Your task to perform on an android device: manage bookmarks in the chrome app Image 0: 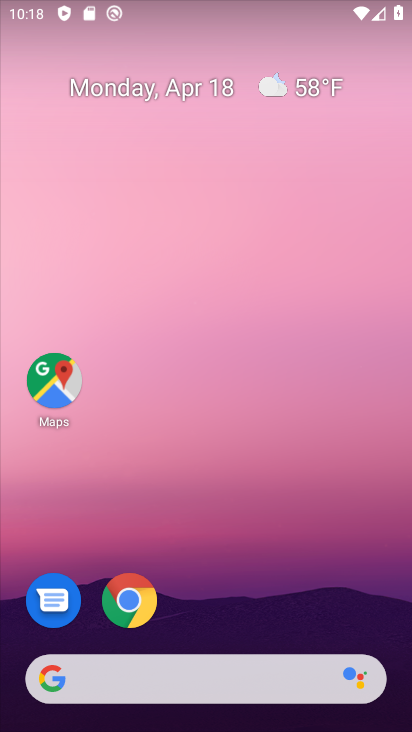
Step 0: click (127, 592)
Your task to perform on an android device: manage bookmarks in the chrome app Image 1: 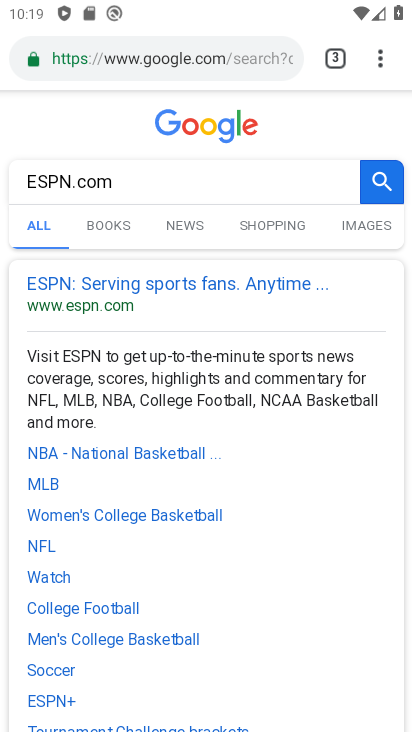
Step 1: click (371, 61)
Your task to perform on an android device: manage bookmarks in the chrome app Image 2: 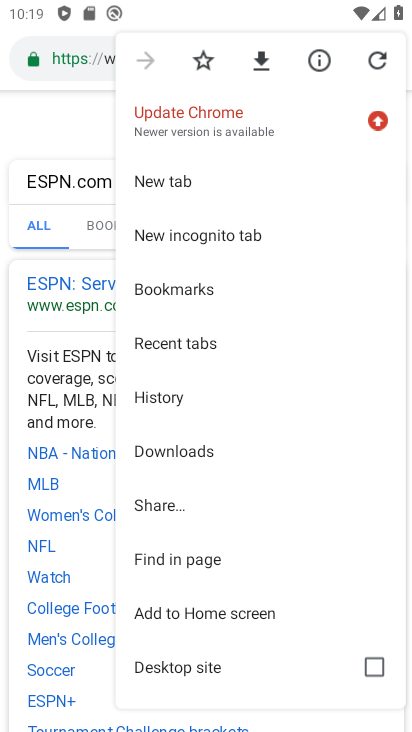
Step 2: click (175, 289)
Your task to perform on an android device: manage bookmarks in the chrome app Image 3: 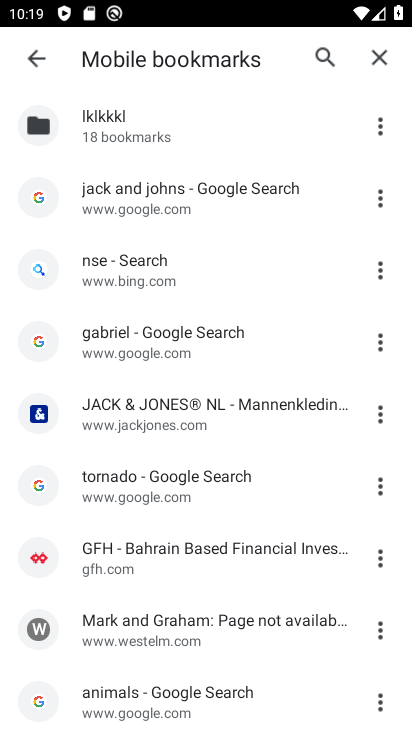
Step 3: click (377, 128)
Your task to perform on an android device: manage bookmarks in the chrome app Image 4: 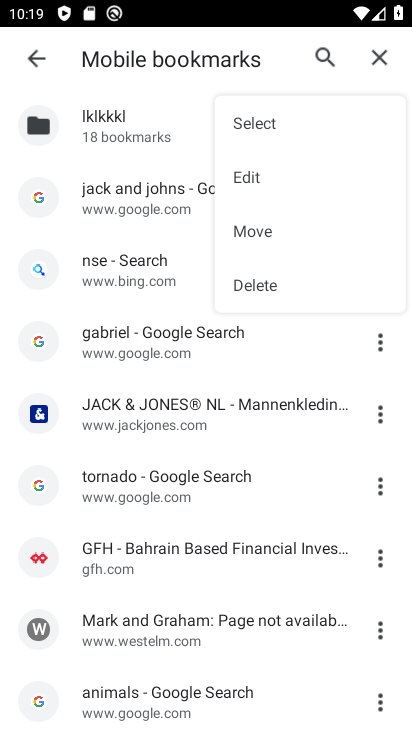
Step 4: click (252, 172)
Your task to perform on an android device: manage bookmarks in the chrome app Image 5: 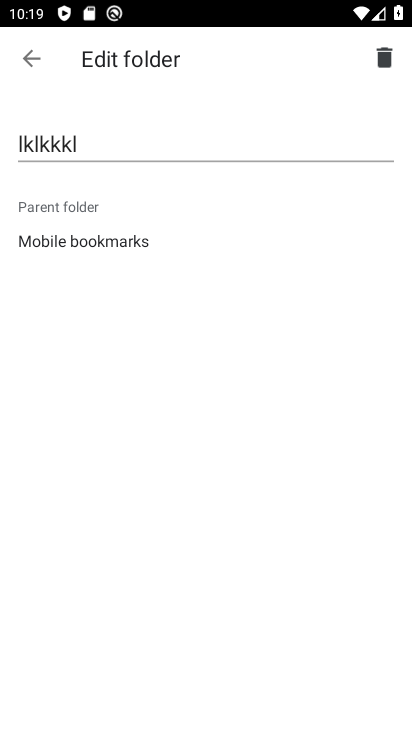
Step 5: task complete